Your task to perform on an android device: open app "eBay: The shopping marketplace" Image 0: 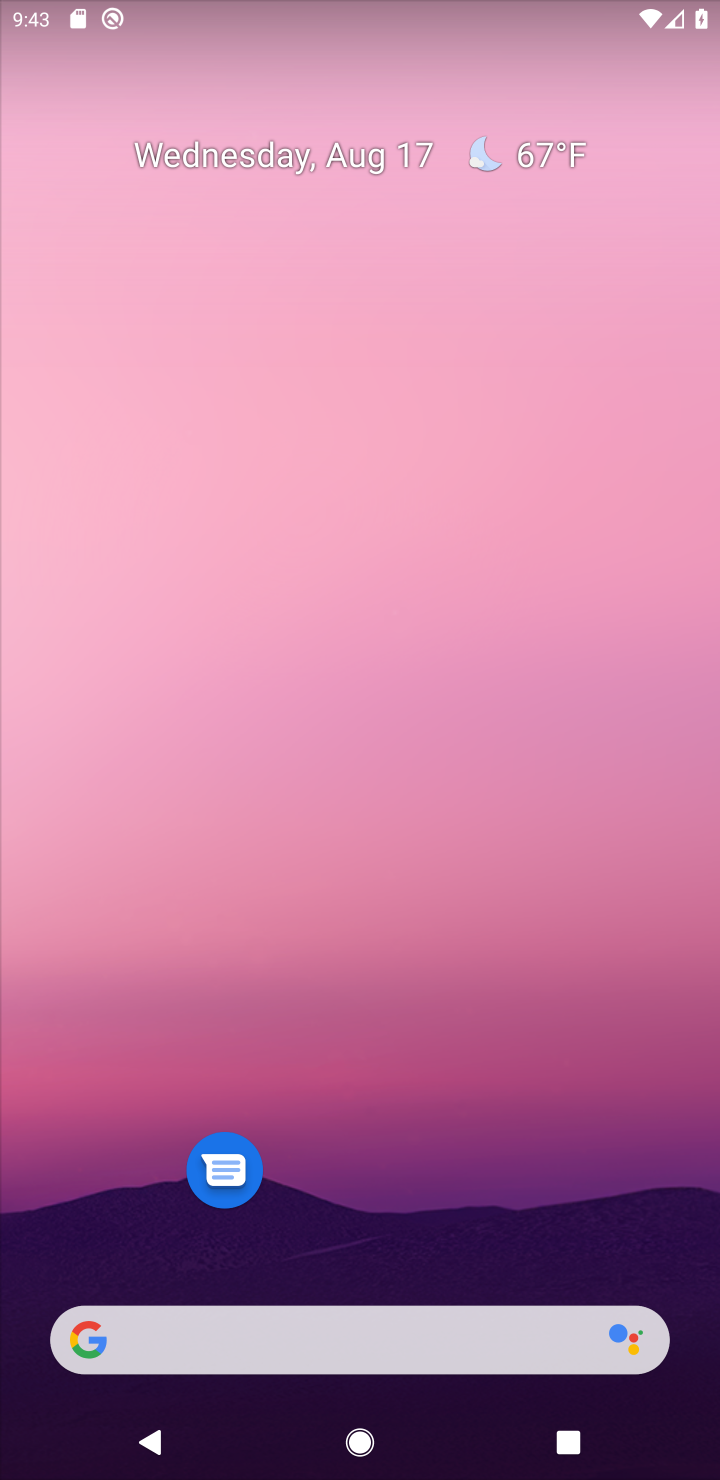
Step 0: drag from (395, 1266) to (354, 275)
Your task to perform on an android device: open app "eBay: The shopping marketplace" Image 1: 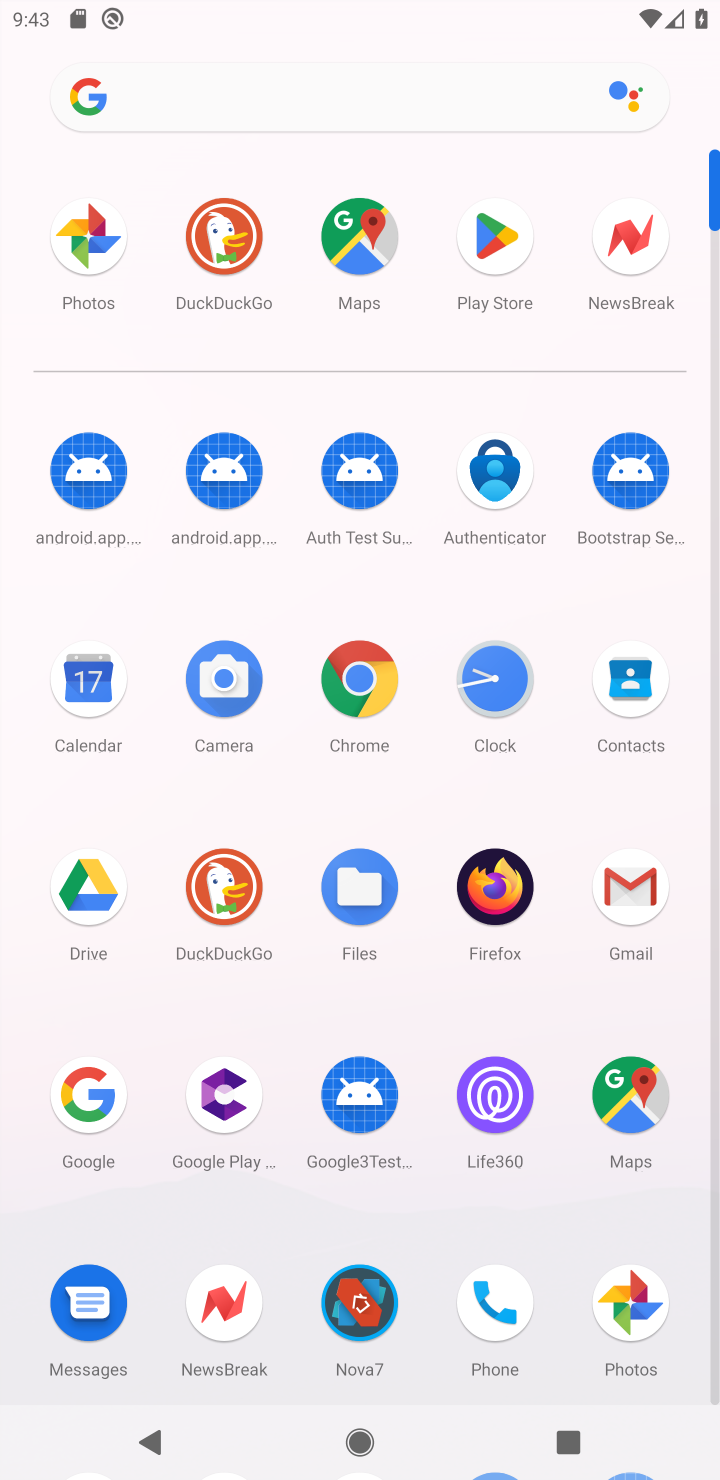
Step 1: click (489, 278)
Your task to perform on an android device: open app "eBay: The shopping marketplace" Image 2: 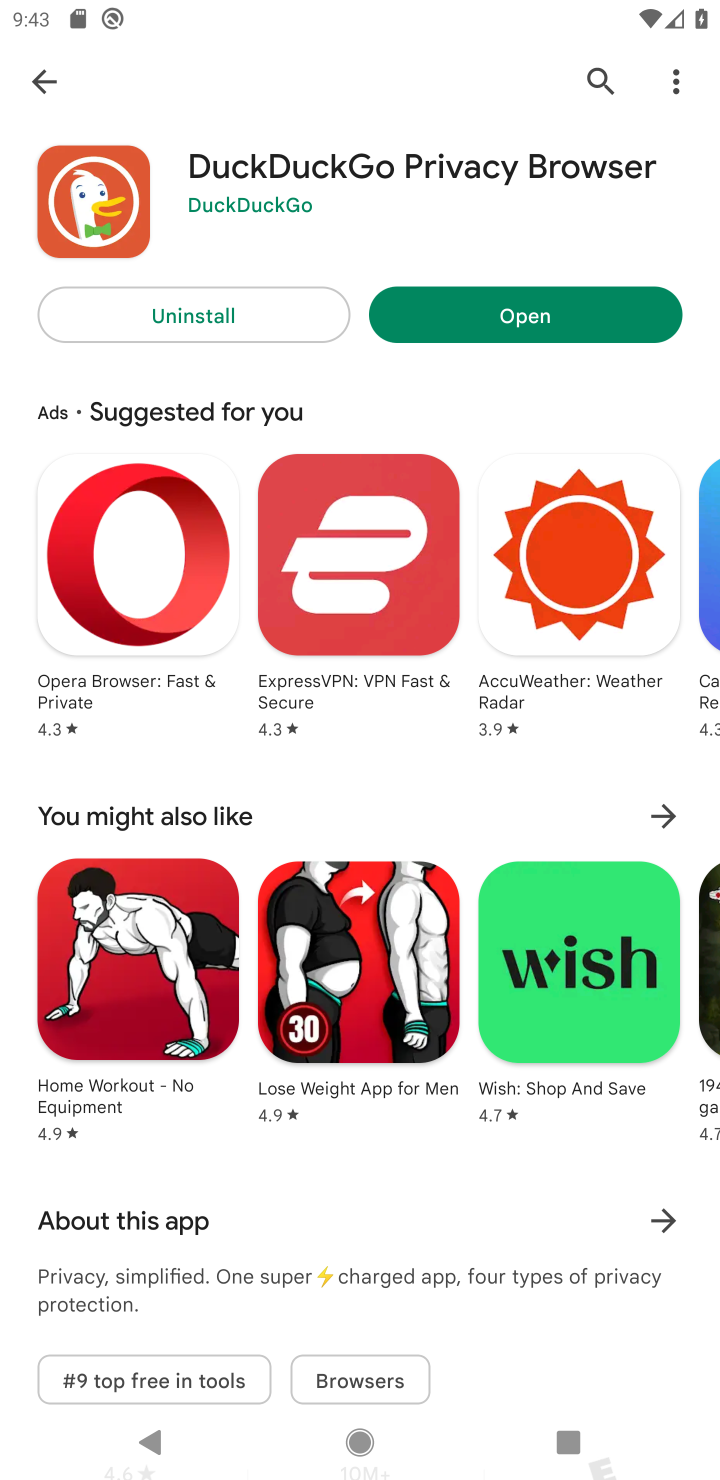
Step 2: click (31, 87)
Your task to perform on an android device: open app "eBay: The shopping marketplace" Image 3: 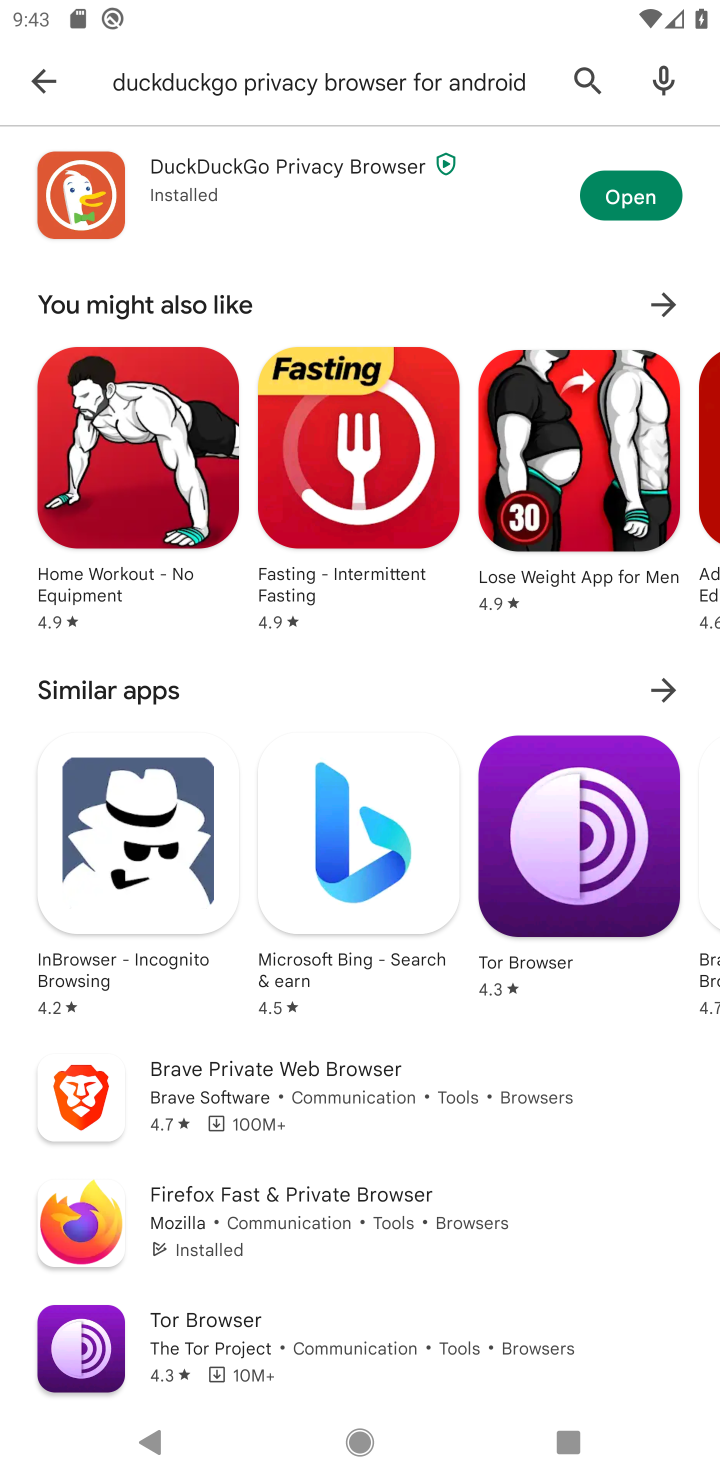
Step 3: click (46, 62)
Your task to perform on an android device: open app "eBay: The shopping marketplace" Image 4: 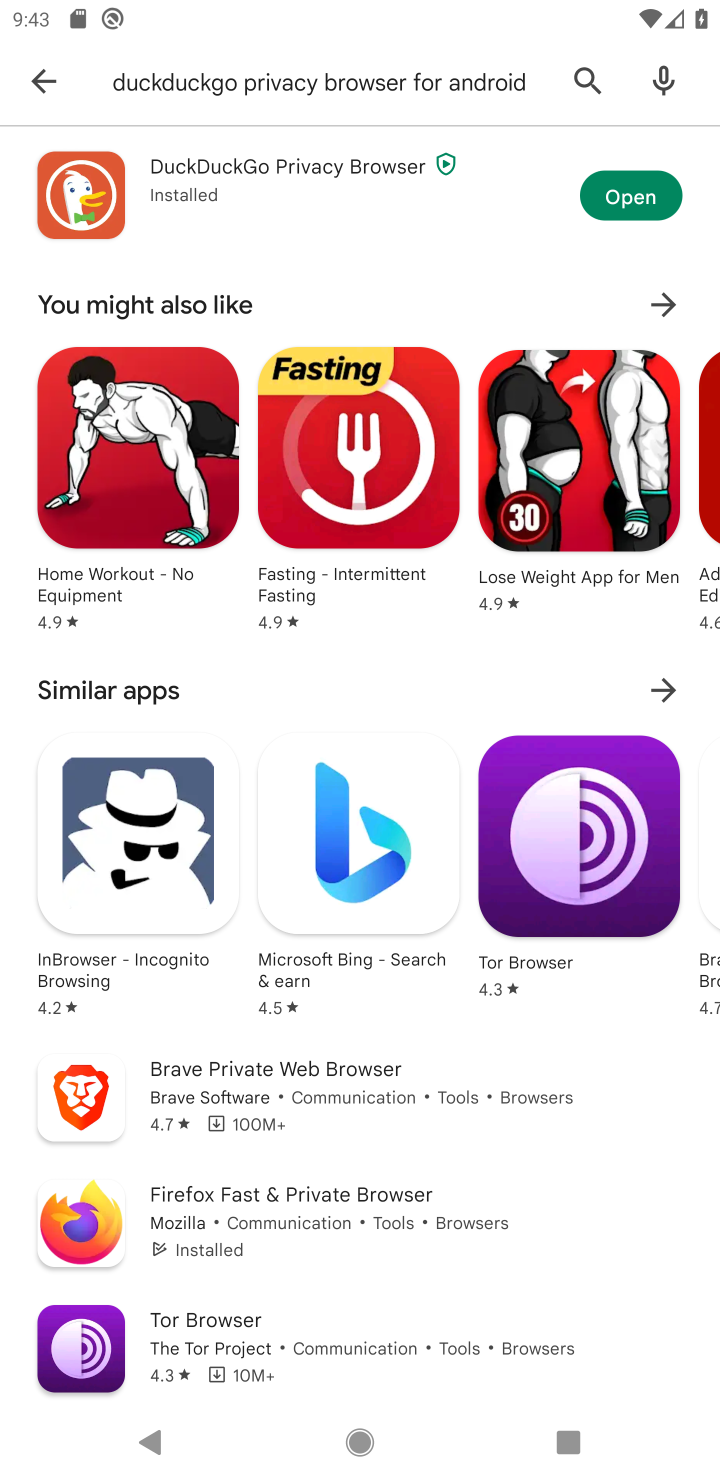
Step 4: click (53, 75)
Your task to perform on an android device: open app "eBay: The shopping marketplace" Image 5: 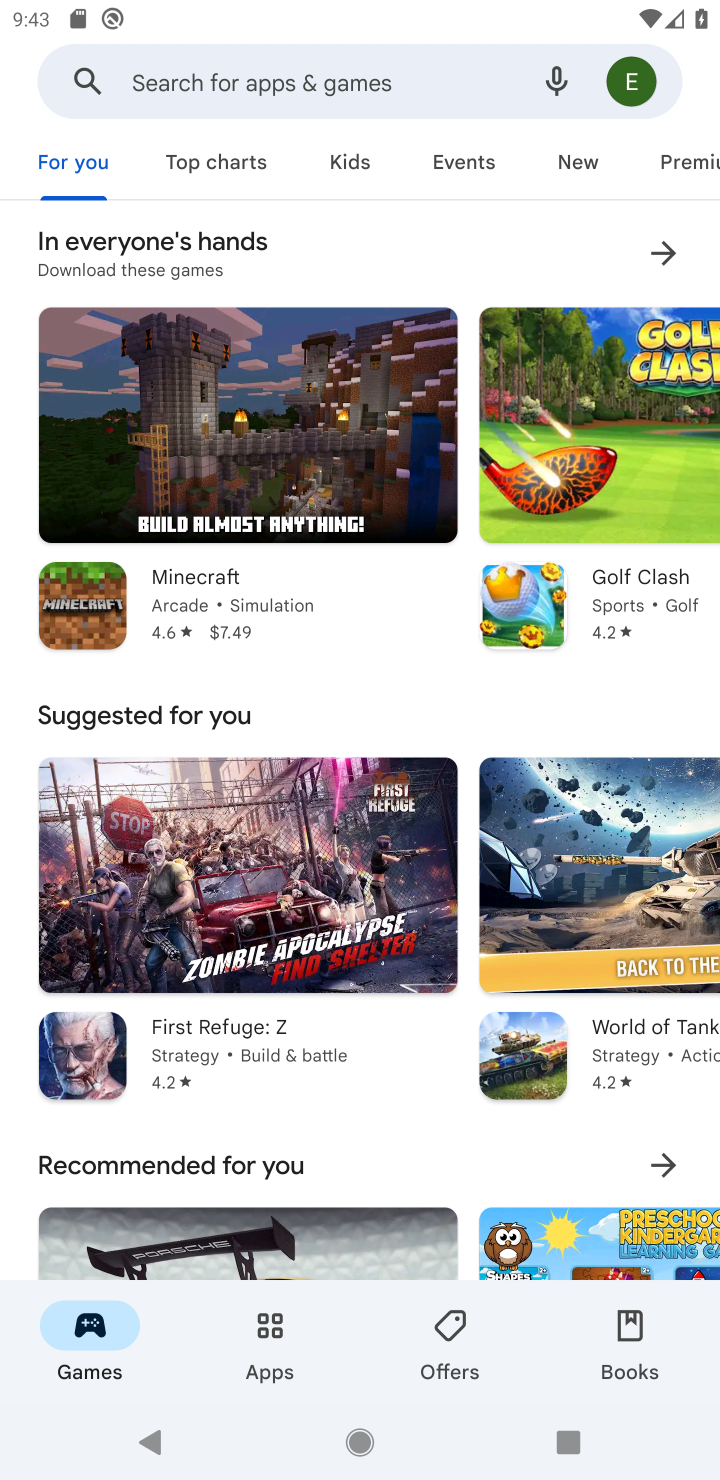
Step 5: click (284, 85)
Your task to perform on an android device: open app "eBay: The shopping marketplace" Image 6: 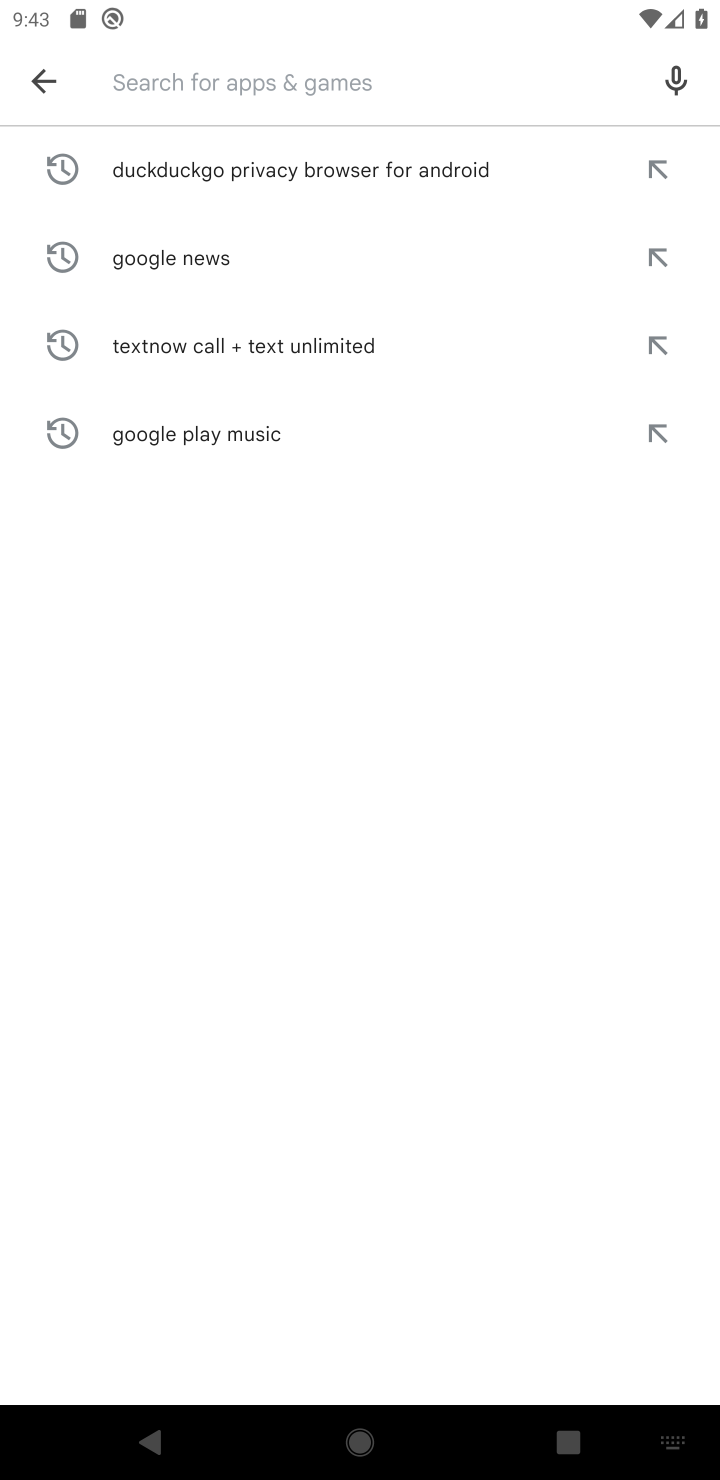
Step 6: type "eBay"
Your task to perform on an android device: open app "eBay: The shopping marketplace" Image 7: 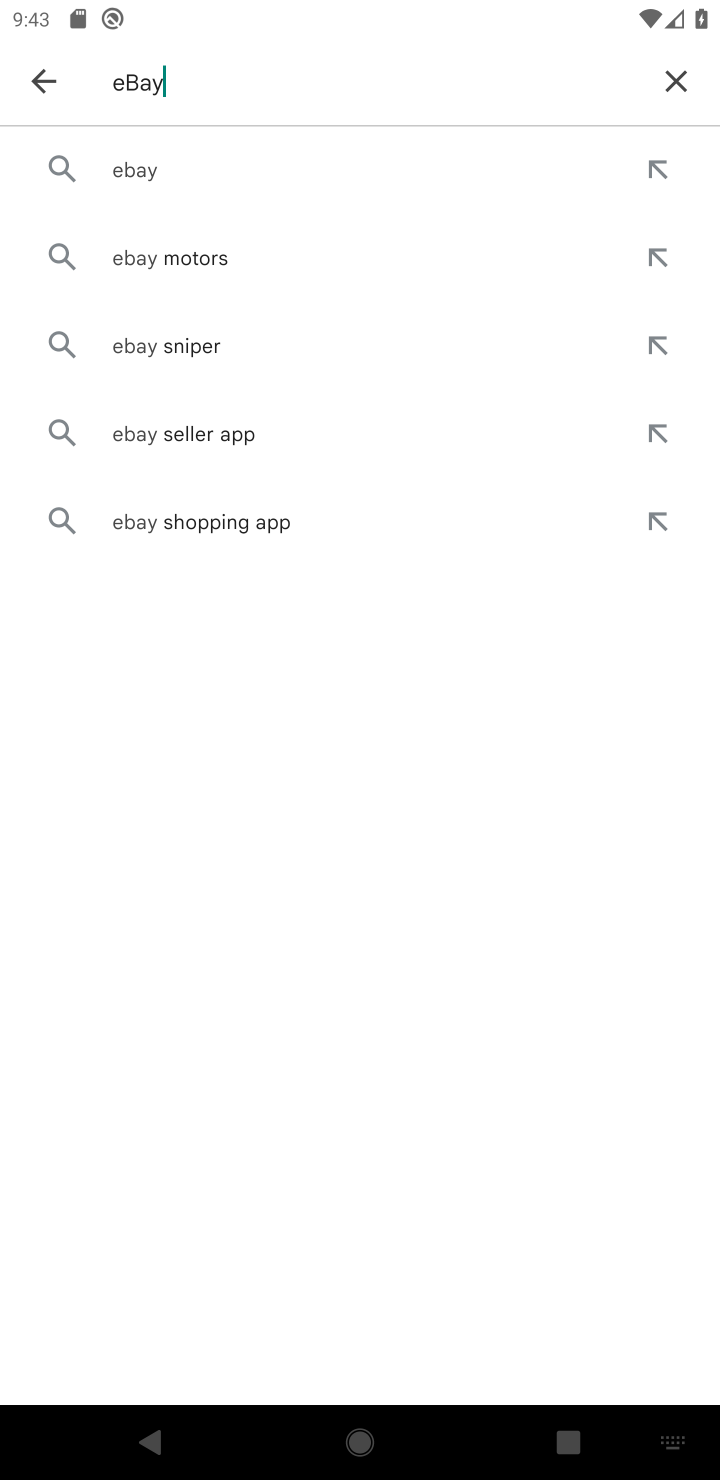
Step 7: click (74, 158)
Your task to perform on an android device: open app "eBay: The shopping marketplace" Image 8: 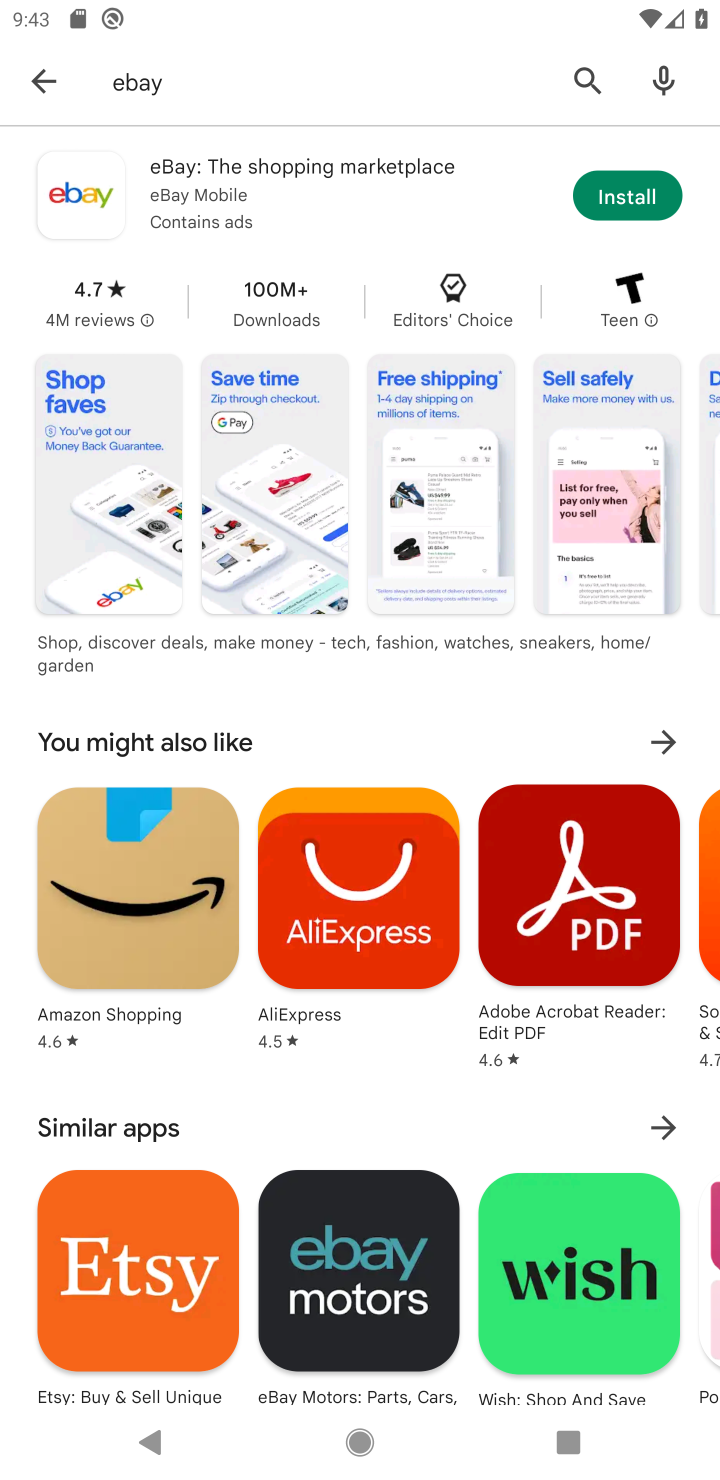
Step 8: task complete